Your task to perform on an android device: set the timer Image 0: 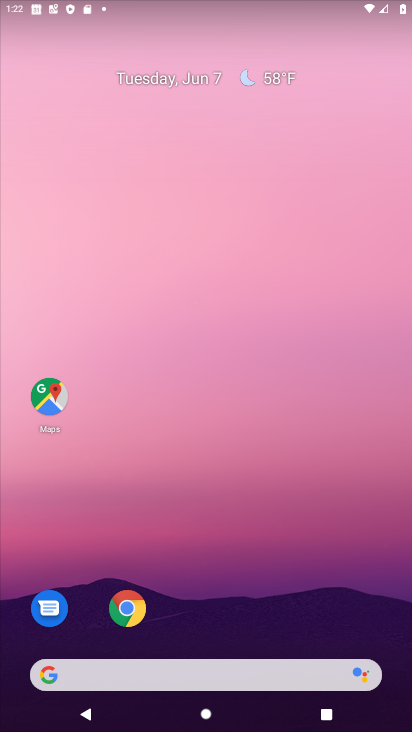
Step 0: drag from (292, 544) to (317, 52)
Your task to perform on an android device: set the timer Image 1: 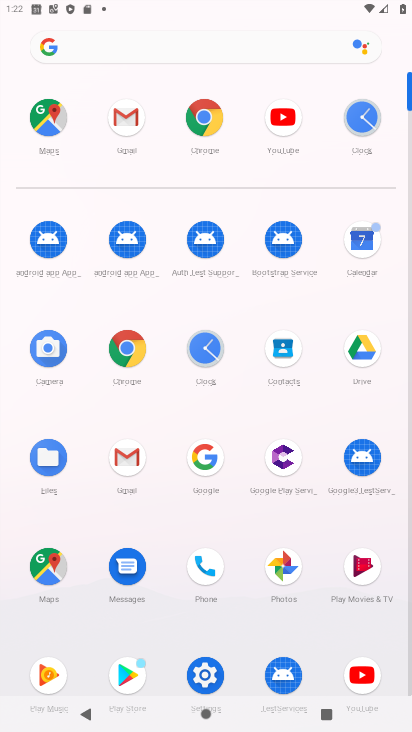
Step 1: click (215, 353)
Your task to perform on an android device: set the timer Image 2: 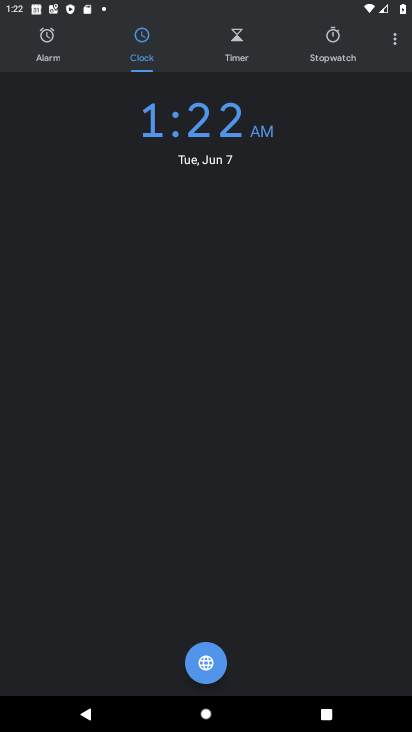
Step 2: click (236, 43)
Your task to perform on an android device: set the timer Image 3: 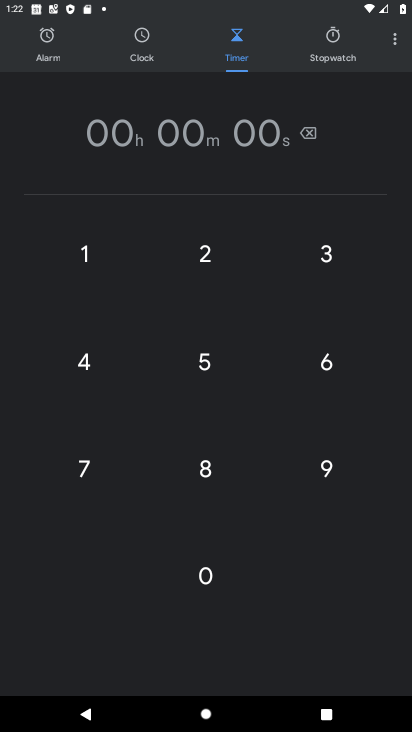
Step 3: click (198, 375)
Your task to perform on an android device: set the timer Image 4: 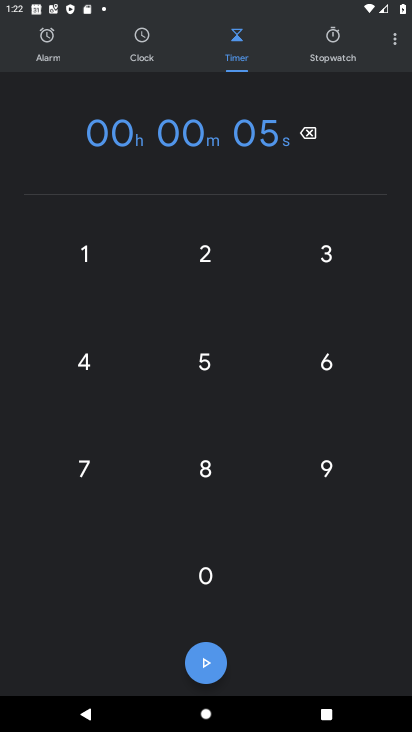
Step 4: task complete